Your task to perform on an android device: Show me the alarms in the clock app Image 0: 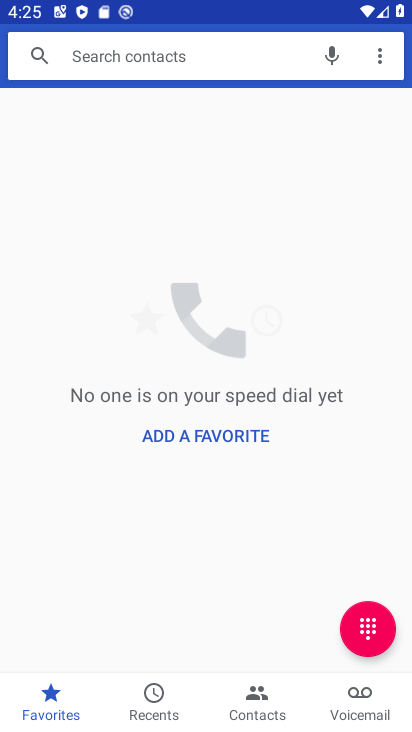
Step 0: press home button
Your task to perform on an android device: Show me the alarms in the clock app Image 1: 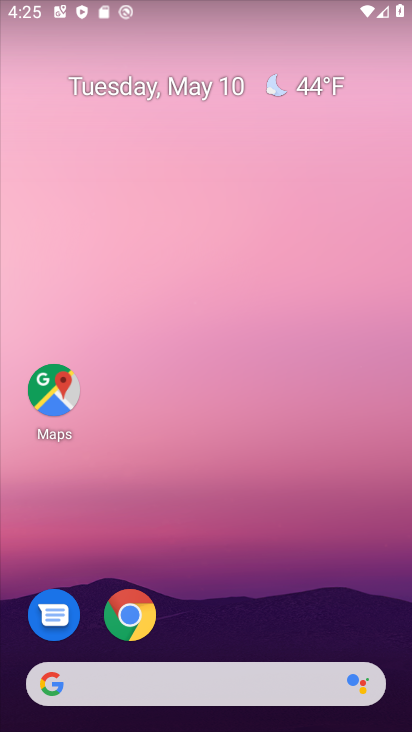
Step 1: drag from (210, 726) to (208, 89)
Your task to perform on an android device: Show me the alarms in the clock app Image 2: 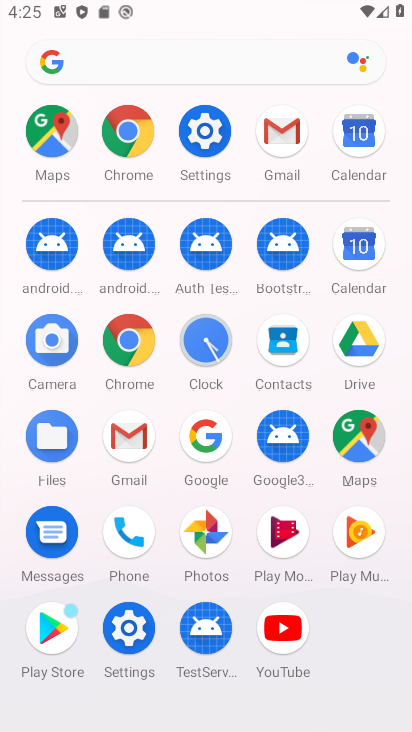
Step 2: click (210, 343)
Your task to perform on an android device: Show me the alarms in the clock app Image 3: 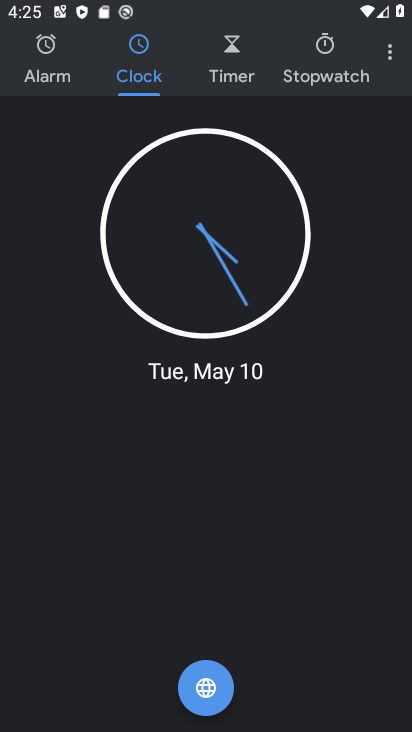
Step 3: click (44, 62)
Your task to perform on an android device: Show me the alarms in the clock app Image 4: 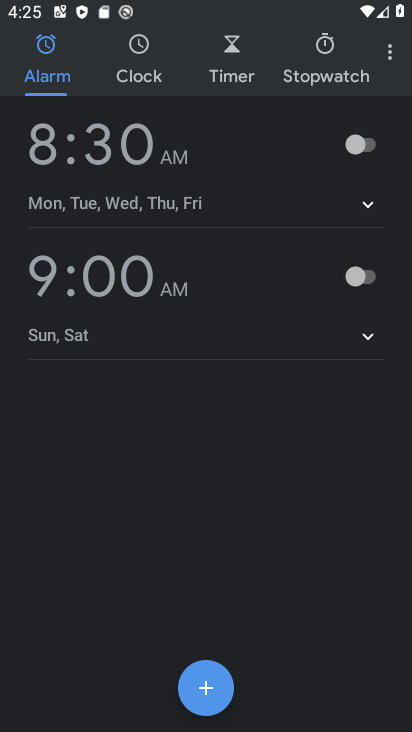
Step 4: task complete